Your task to perform on an android device: Go to network settings Image 0: 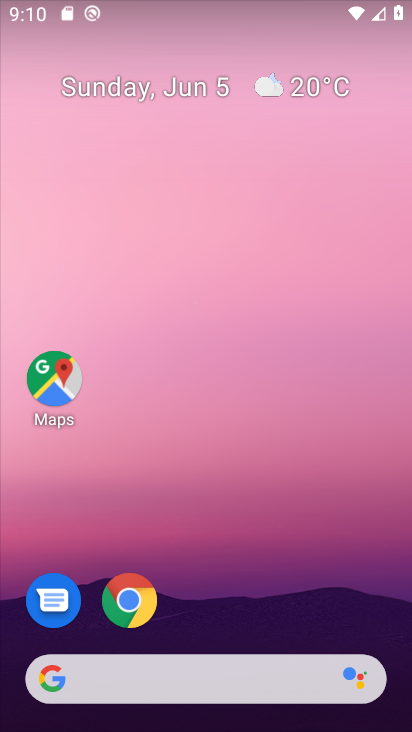
Step 0: drag from (256, 586) to (227, 42)
Your task to perform on an android device: Go to network settings Image 1: 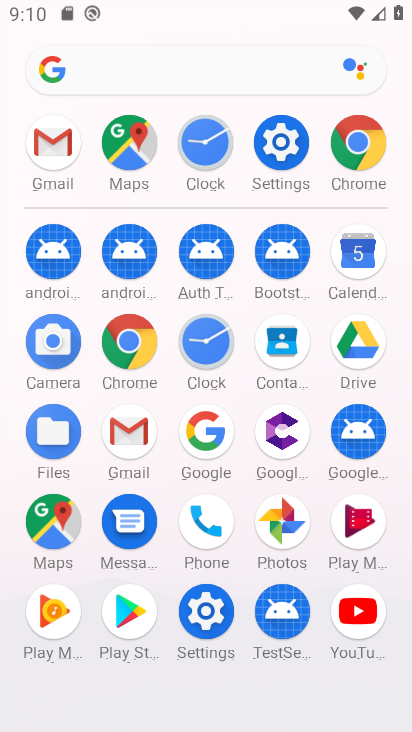
Step 1: click (275, 146)
Your task to perform on an android device: Go to network settings Image 2: 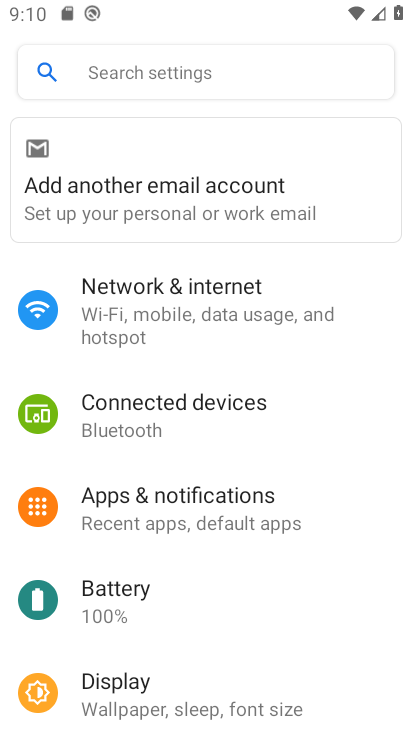
Step 2: click (190, 288)
Your task to perform on an android device: Go to network settings Image 3: 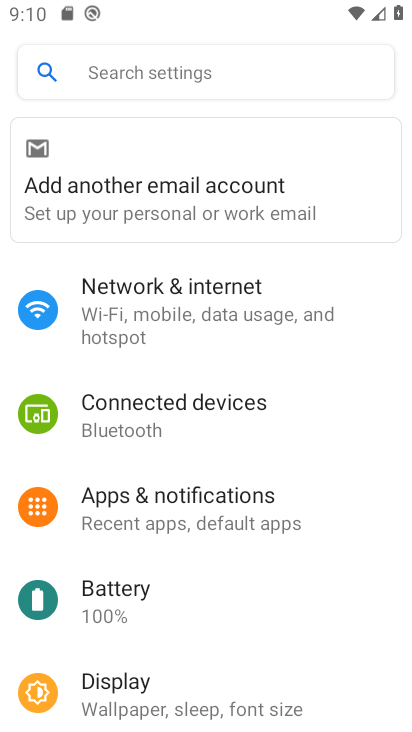
Step 3: click (245, 318)
Your task to perform on an android device: Go to network settings Image 4: 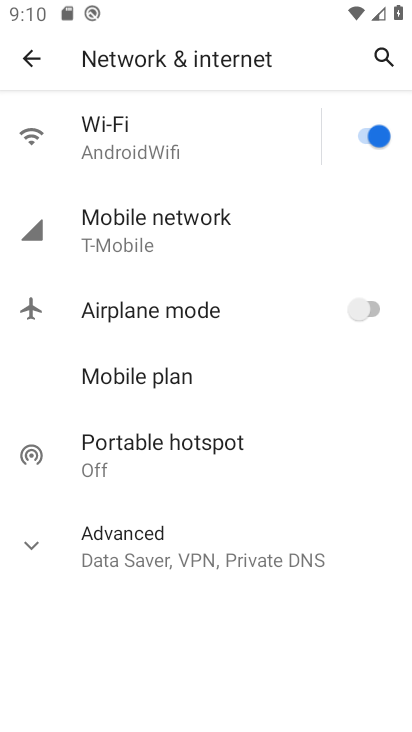
Step 4: task complete